Your task to perform on an android device: Search for pizza restaurants on Maps Image 0: 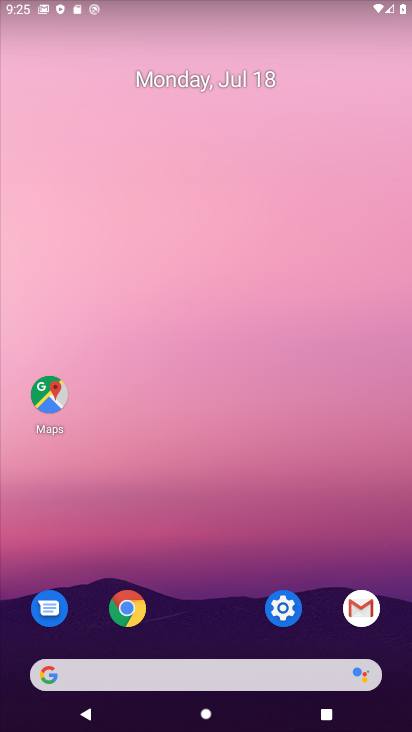
Step 0: click (57, 374)
Your task to perform on an android device: Search for pizza restaurants on Maps Image 1: 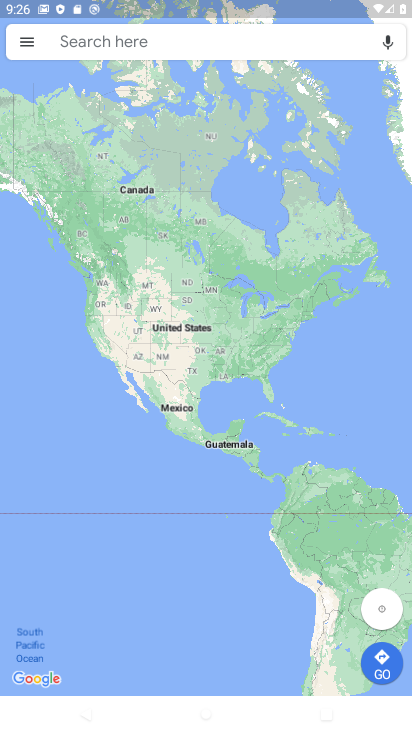
Step 1: click (263, 58)
Your task to perform on an android device: Search for pizza restaurants on Maps Image 2: 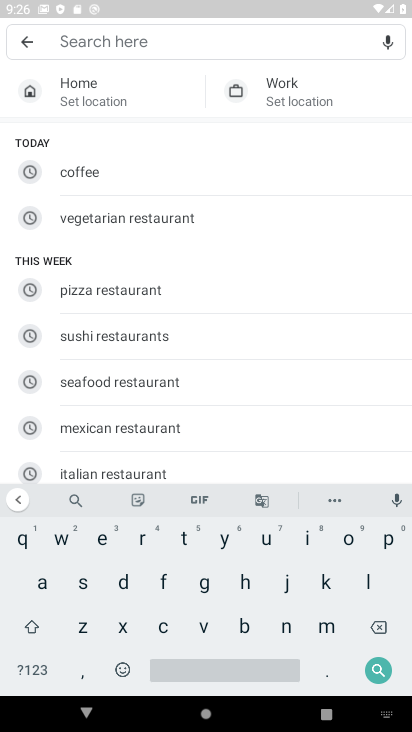
Step 2: click (145, 282)
Your task to perform on an android device: Search for pizza restaurants on Maps Image 3: 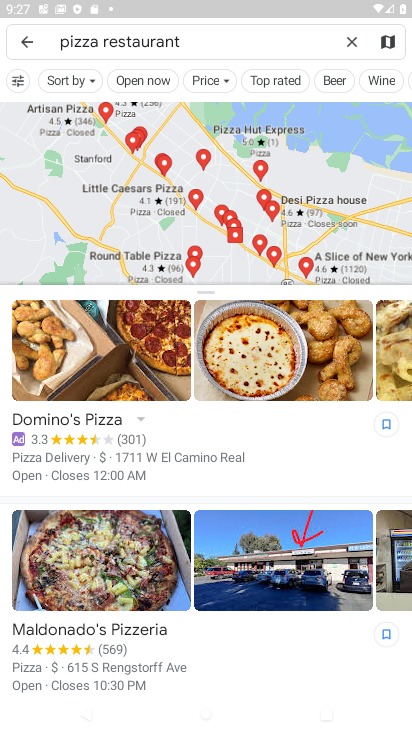
Step 3: task complete